Your task to perform on an android device: Open the map Image 0: 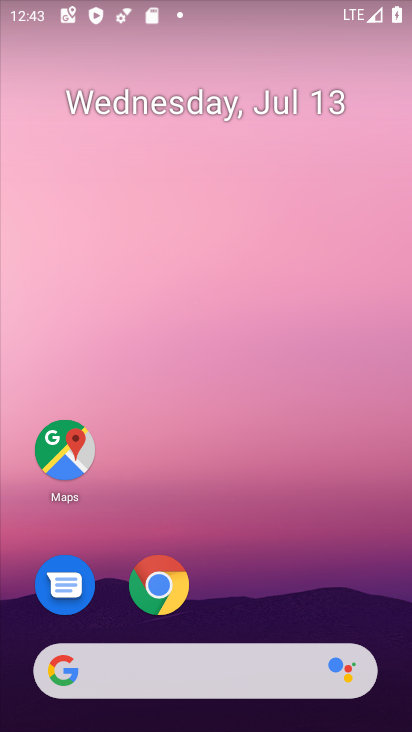
Step 0: click (56, 451)
Your task to perform on an android device: Open the map Image 1: 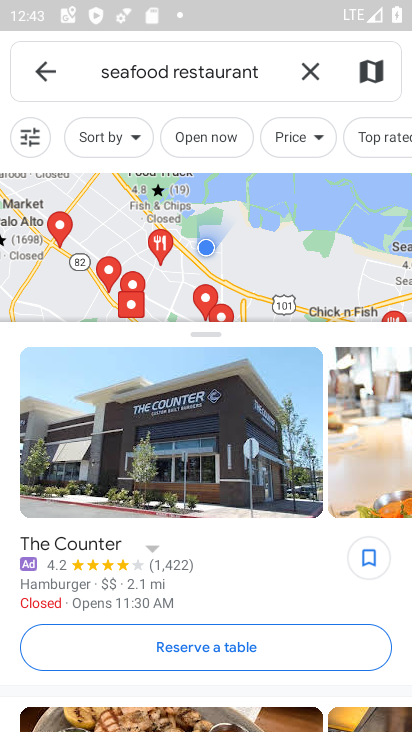
Step 1: task complete